Your task to perform on an android device: change the clock display to analog Image 0: 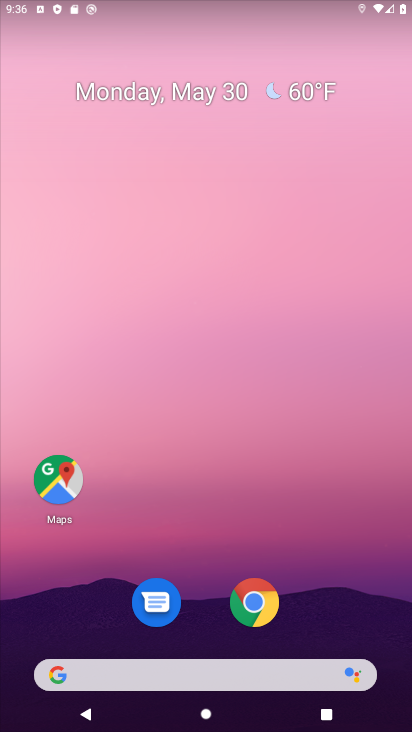
Step 0: drag from (205, 595) to (198, 202)
Your task to perform on an android device: change the clock display to analog Image 1: 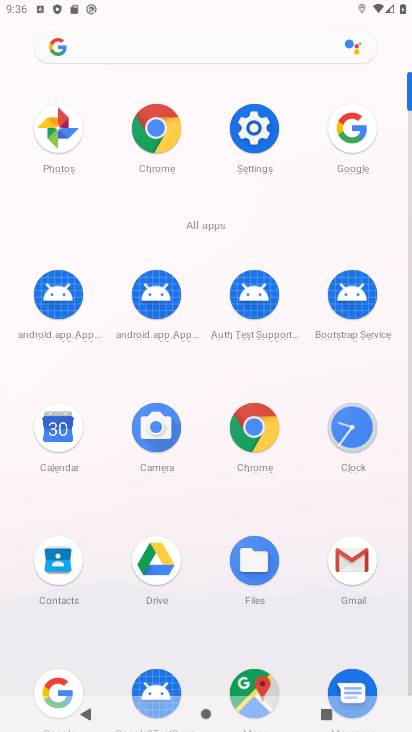
Step 1: click (355, 435)
Your task to perform on an android device: change the clock display to analog Image 2: 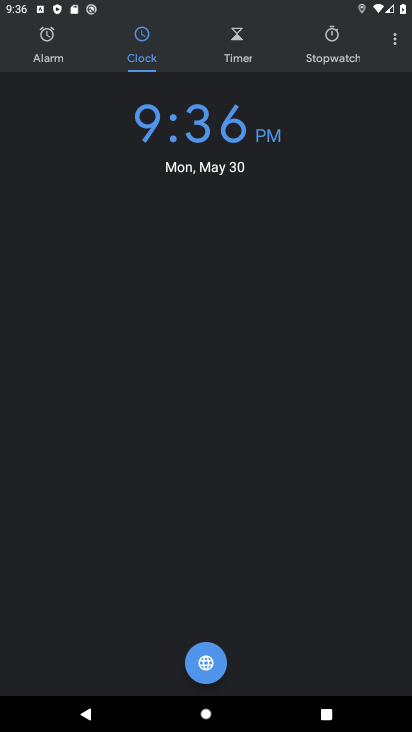
Step 2: click (387, 46)
Your task to perform on an android device: change the clock display to analog Image 3: 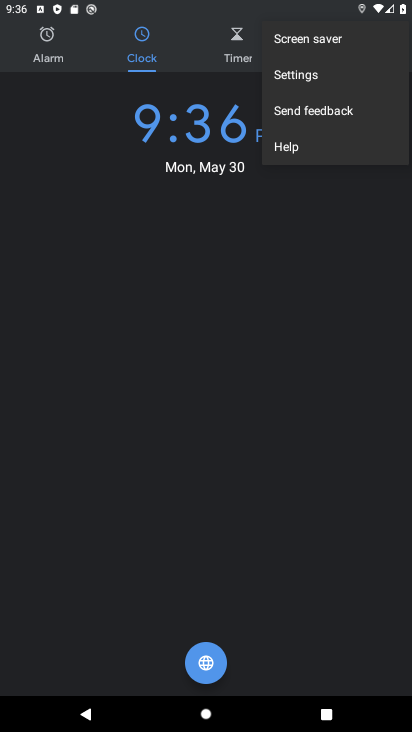
Step 3: click (326, 73)
Your task to perform on an android device: change the clock display to analog Image 4: 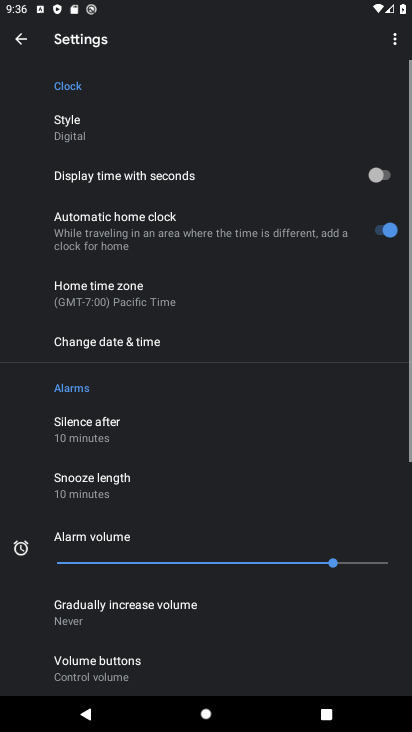
Step 4: click (139, 142)
Your task to perform on an android device: change the clock display to analog Image 5: 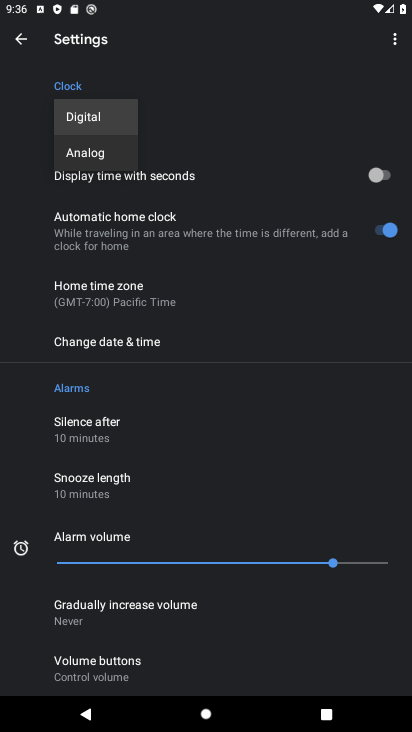
Step 5: click (50, 144)
Your task to perform on an android device: change the clock display to analog Image 6: 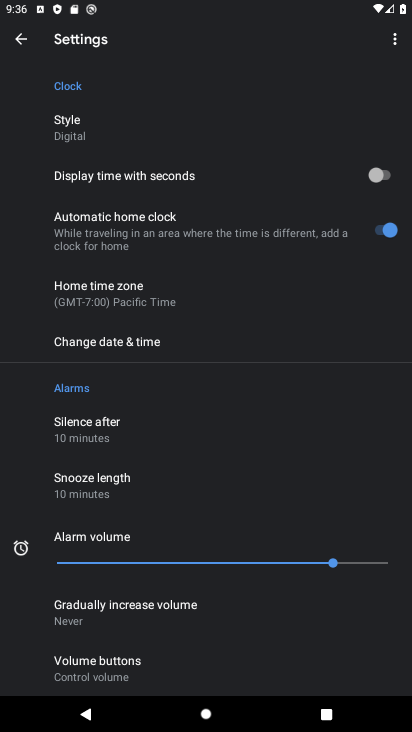
Step 6: click (74, 140)
Your task to perform on an android device: change the clock display to analog Image 7: 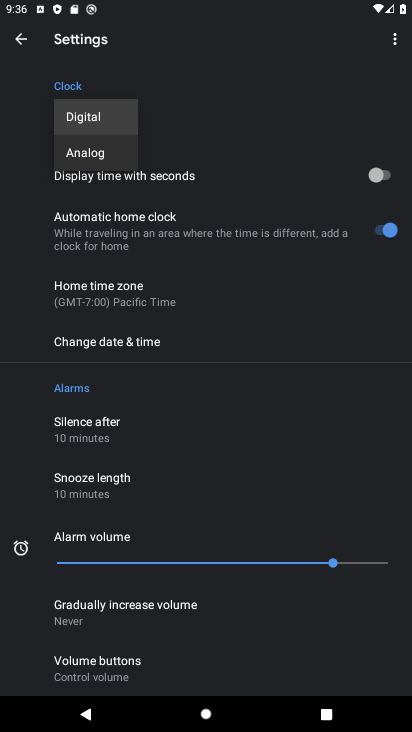
Step 7: click (94, 147)
Your task to perform on an android device: change the clock display to analog Image 8: 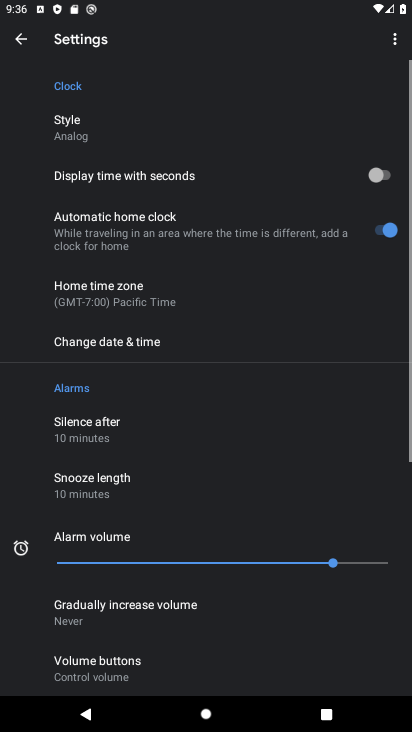
Step 8: task complete